Your task to perform on an android device: find photos in the google photos app Image 0: 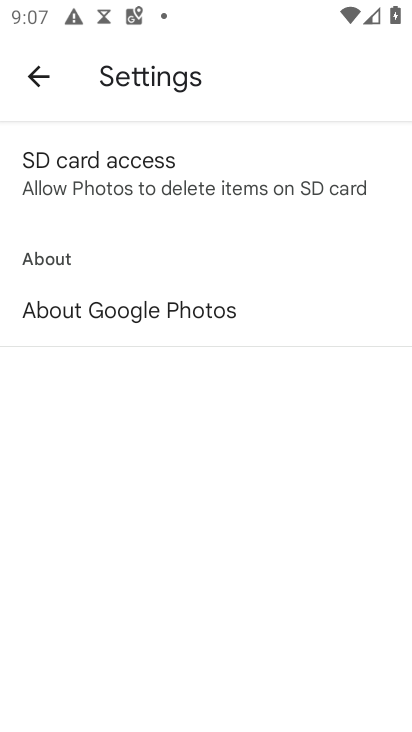
Step 0: press home button
Your task to perform on an android device: find photos in the google photos app Image 1: 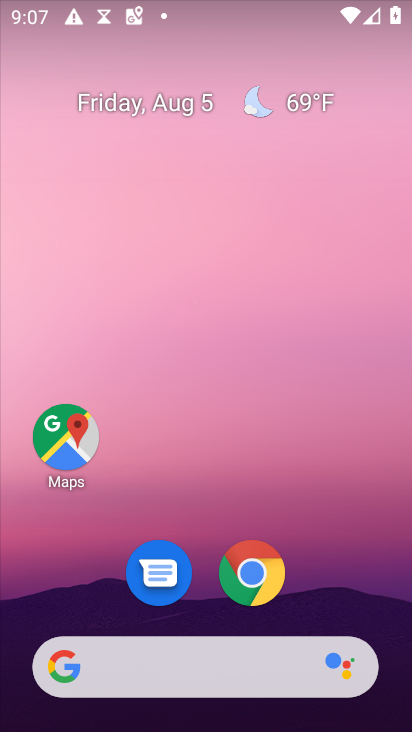
Step 1: drag from (157, 682) to (279, 210)
Your task to perform on an android device: find photos in the google photos app Image 2: 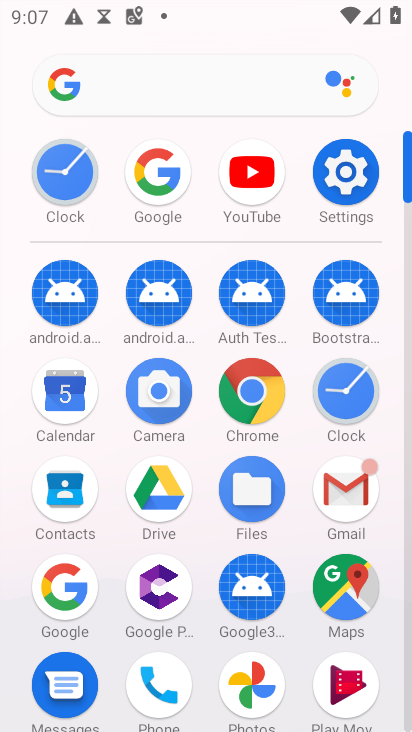
Step 2: click (250, 685)
Your task to perform on an android device: find photos in the google photos app Image 3: 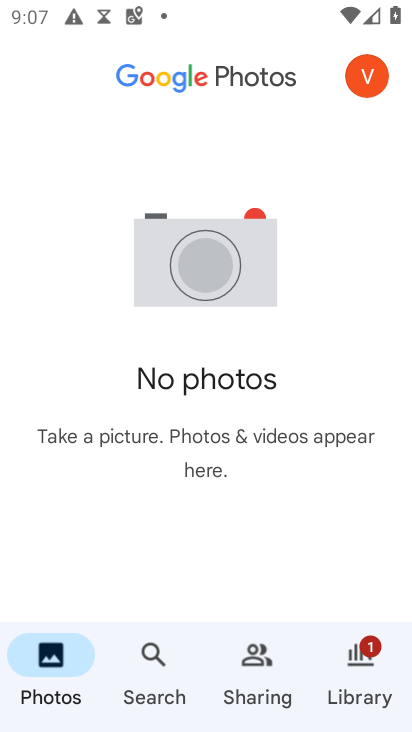
Step 3: click (155, 655)
Your task to perform on an android device: find photos in the google photos app Image 4: 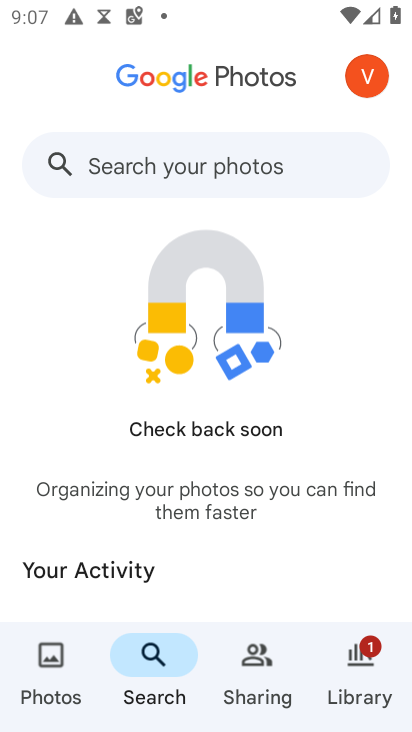
Step 4: click (210, 162)
Your task to perform on an android device: find photos in the google photos app Image 5: 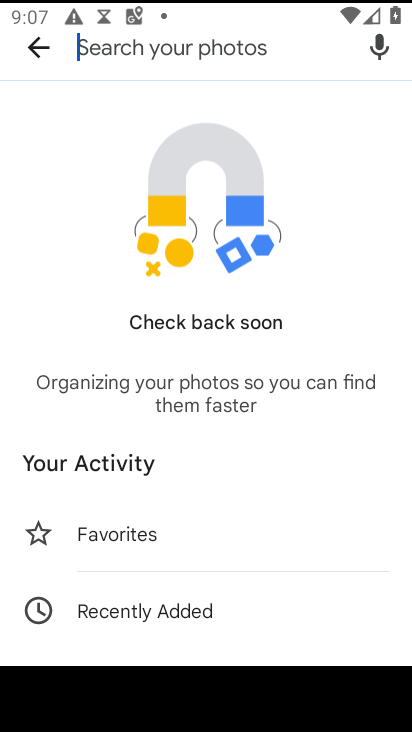
Step 5: click (150, 533)
Your task to perform on an android device: find photos in the google photos app Image 6: 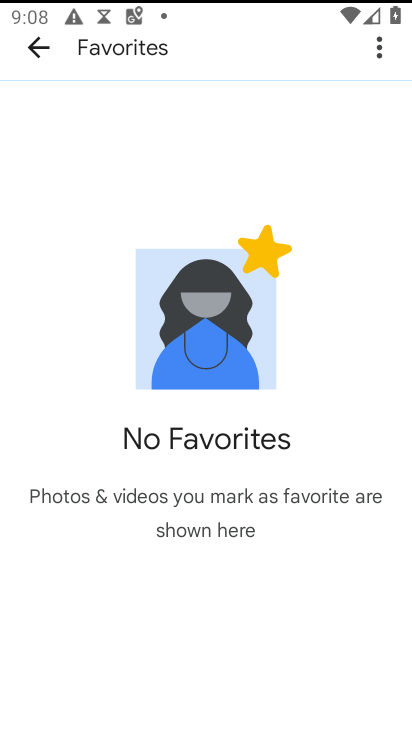
Step 6: task complete